Your task to perform on an android device: toggle javascript in the chrome app Image 0: 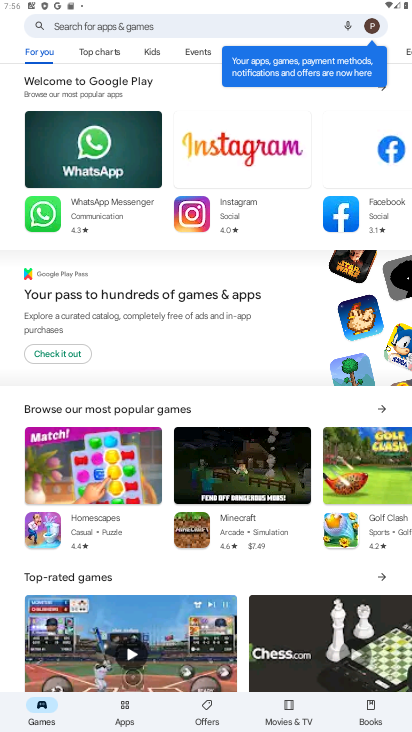
Step 0: press home button
Your task to perform on an android device: toggle javascript in the chrome app Image 1: 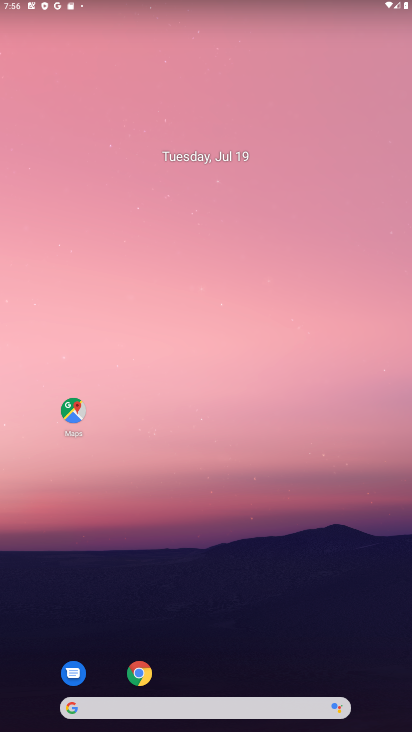
Step 1: click (145, 680)
Your task to perform on an android device: toggle javascript in the chrome app Image 2: 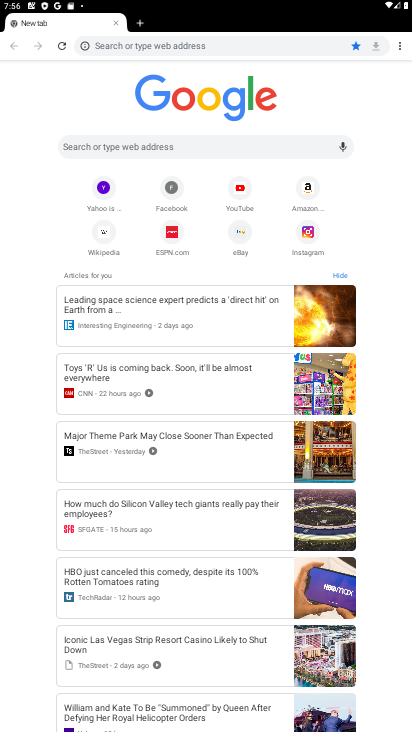
Step 2: click (398, 48)
Your task to perform on an android device: toggle javascript in the chrome app Image 3: 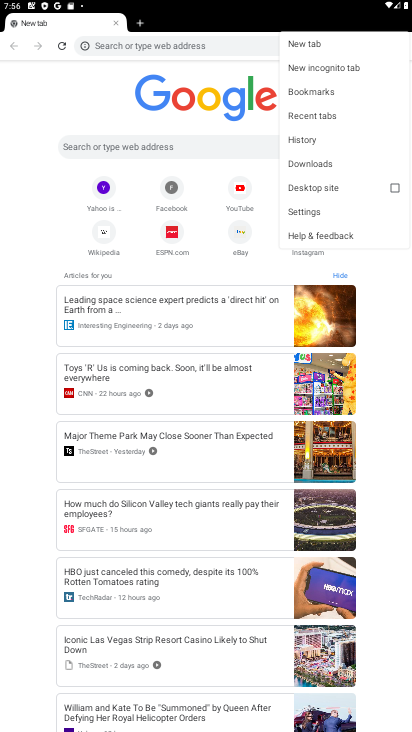
Step 3: click (317, 205)
Your task to perform on an android device: toggle javascript in the chrome app Image 4: 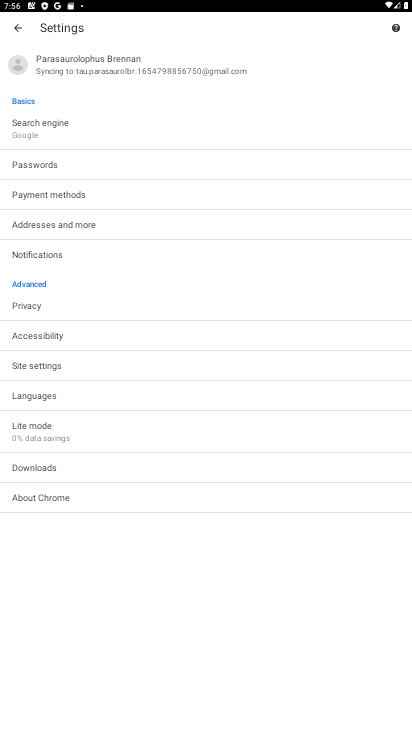
Step 4: click (155, 364)
Your task to perform on an android device: toggle javascript in the chrome app Image 5: 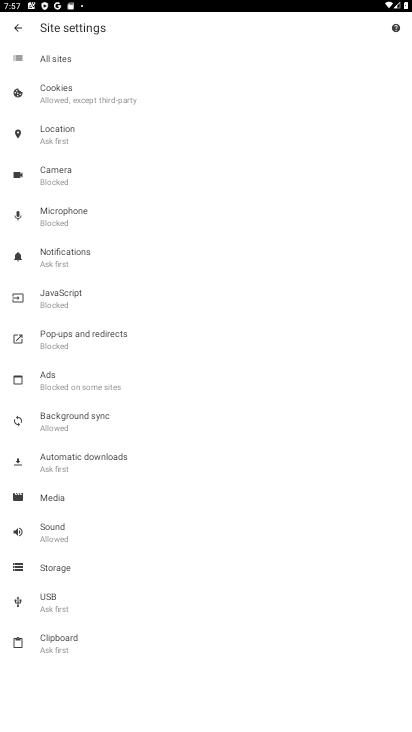
Step 5: click (56, 303)
Your task to perform on an android device: toggle javascript in the chrome app Image 6: 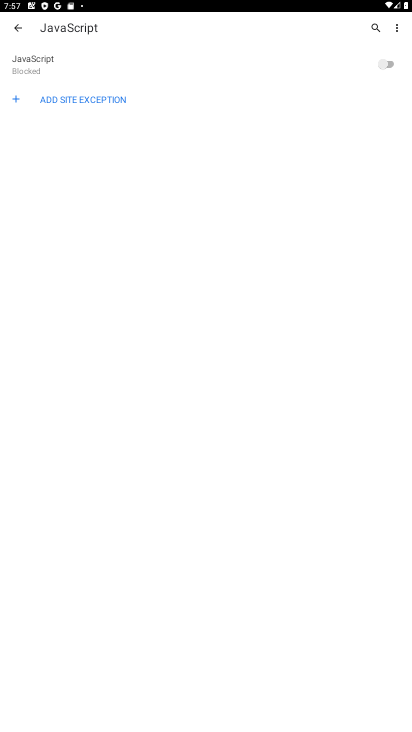
Step 6: click (371, 63)
Your task to perform on an android device: toggle javascript in the chrome app Image 7: 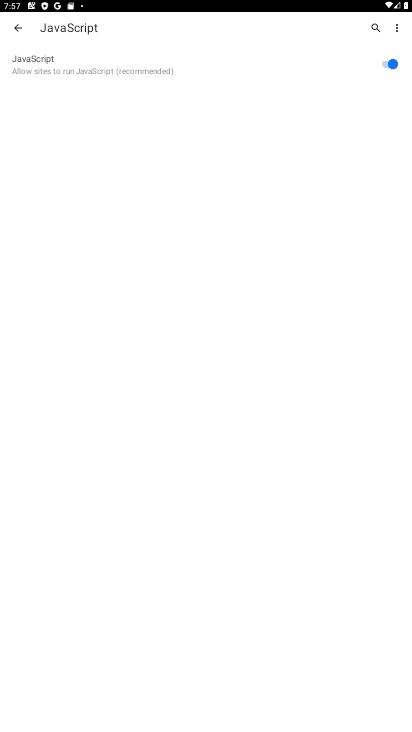
Step 7: task complete